Your task to perform on an android device: Open the calendar and show me this week's events Image 0: 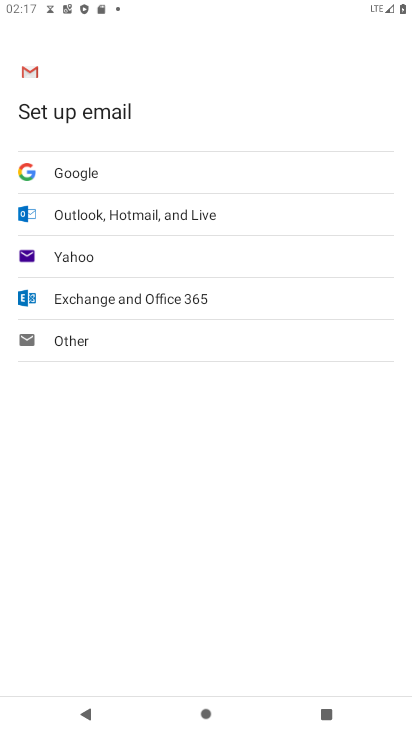
Step 0: press home button
Your task to perform on an android device: Open the calendar and show me this week's events Image 1: 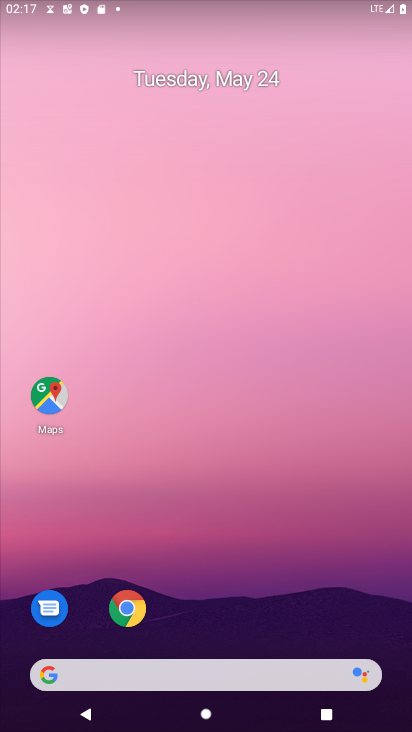
Step 1: drag from (248, 626) to (80, 10)
Your task to perform on an android device: Open the calendar and show me this week's events Image 2: 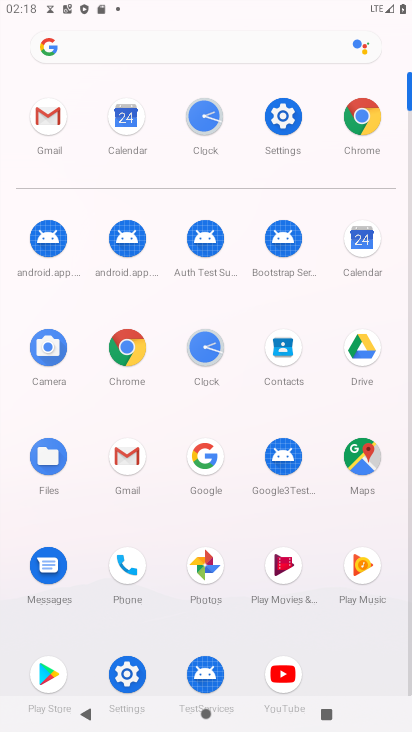
Step 2: click (138, 121)
Your task to perform on an android device: Open the calendar and show me this week's events Image 3: 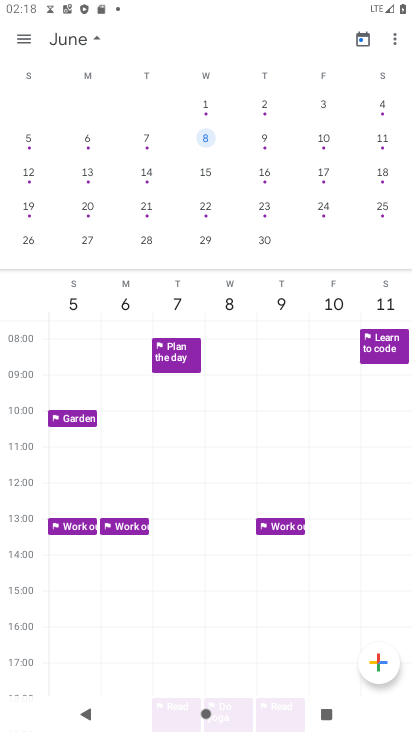
Step 3: click (90, 42)
Your task to perform on an android device: Open the calendar and show me this week's events Image 4: 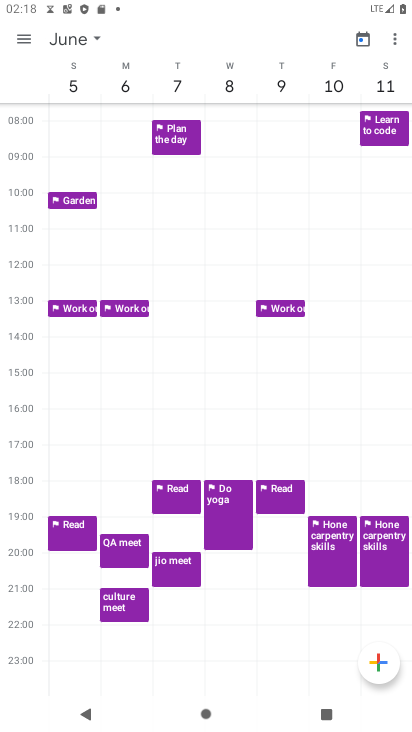
Step 4: click (77, 49)
Your task to perform on an android device: Open the calendar and show me this week's events Image 5: 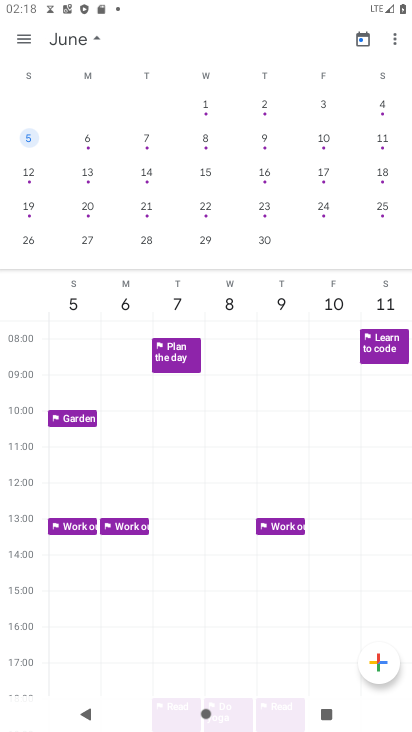
Step 5: drag from (55, 191) to (410, 180)
Your task to perform on an android device: Open the calendar and show me this week's events Image 6: 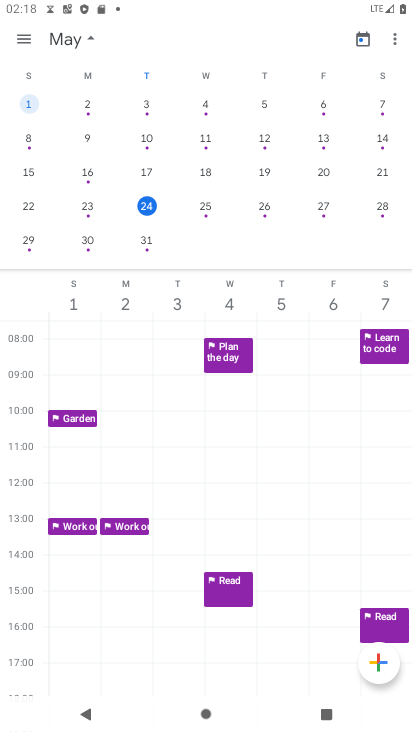
Step 6: click (153, 206)
Your task to perform on an android device: Open the calendar and show me this week's events Image 7: 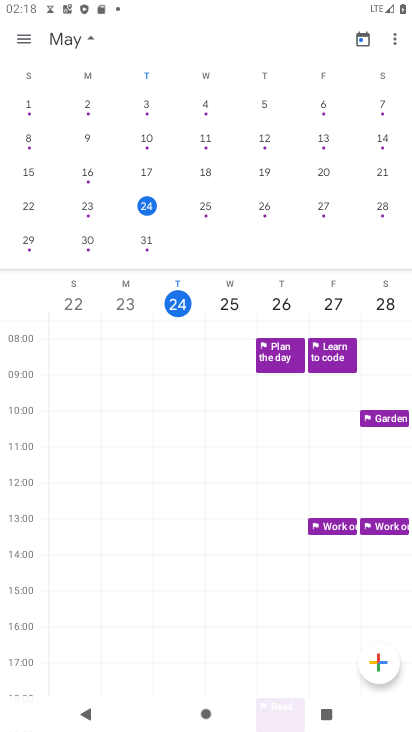
Step 7: task complete